Your task to perform on an android device: see sites visited before in the chrome app Image 0: 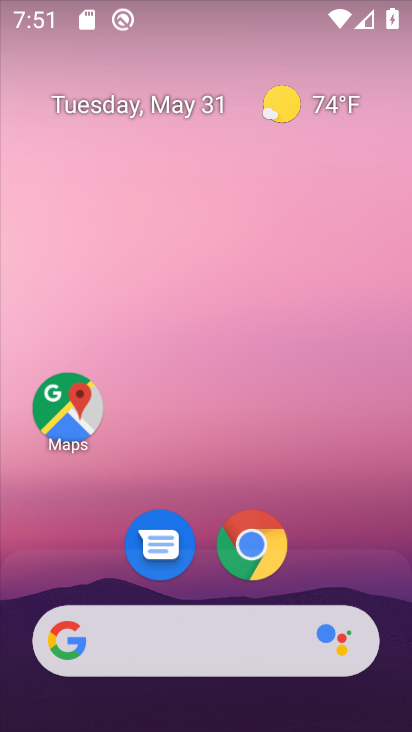
Step 0: drag from (332, 547) to (260, 47)
Your task to perform on an android device: see sites visited before in the chrome app Image 1: 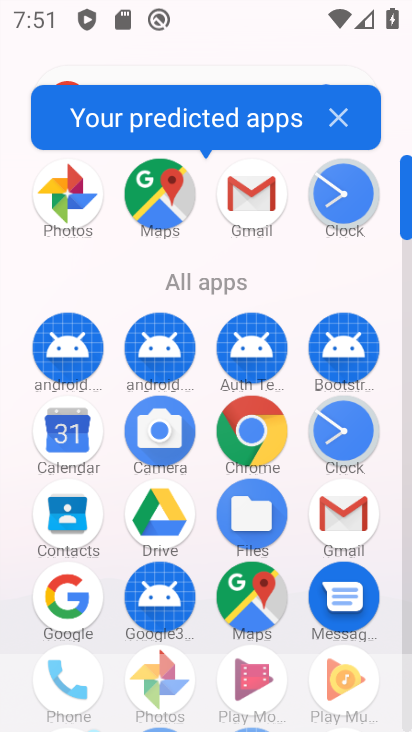
Step 1: drag from (11, 536) to (23, 220)
Your task to perform on an android device: see sites visited before in the chrome app Image 2: 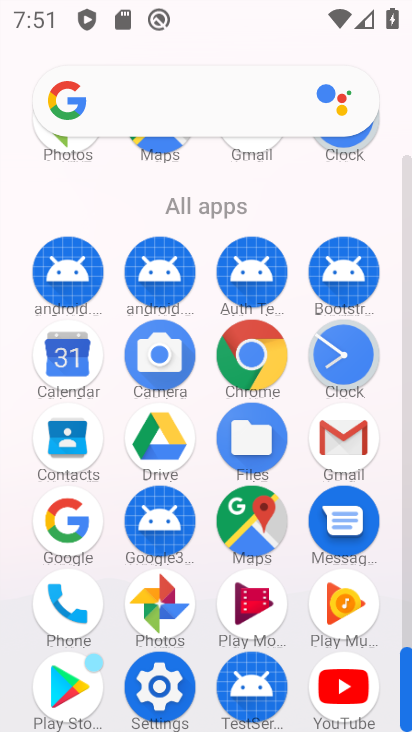
Step 2: click (250, 350)
Your task to perform on an android device: see sites visited before in the chrome app Image 3: 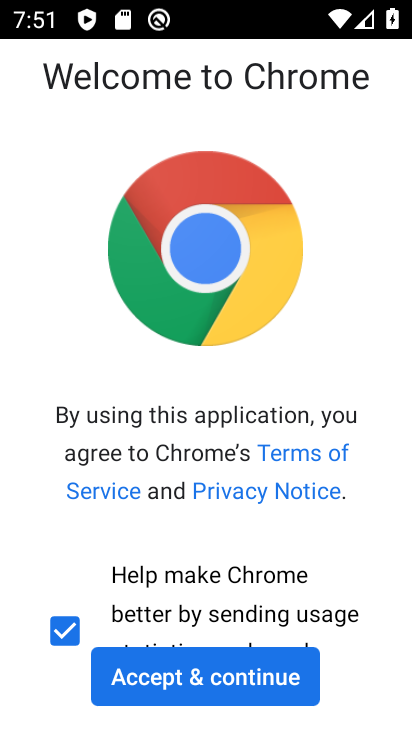
Step 3: click (234, 679)
Your task to perform on an android device: see sites visited before in the chrome app Image 4: 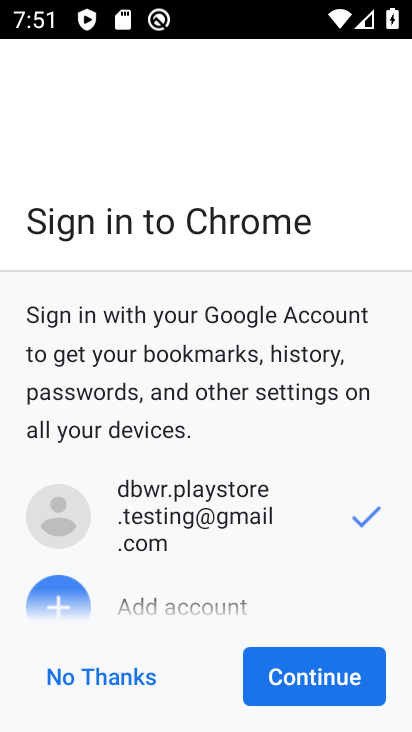
Step 4: click (273, 669)
Your task to perform on an android device: see sites visited before in the chrome app Image 5: 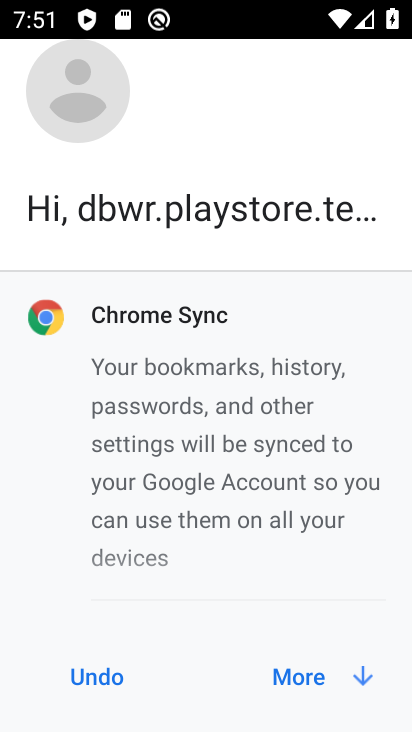
Step 5: click (279, 673)
Your task to perform on an android device: see sites visited before in the chrome app Image 6: 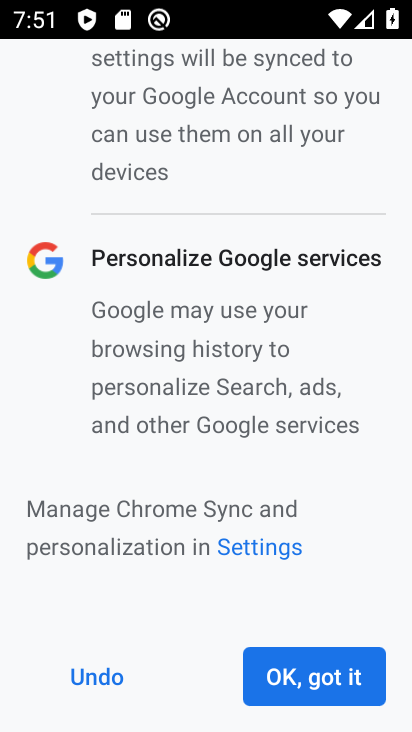
Step 6: click (279, 673)
Your task to perform on an android device: see sites visited before in the chrome app Image 7: 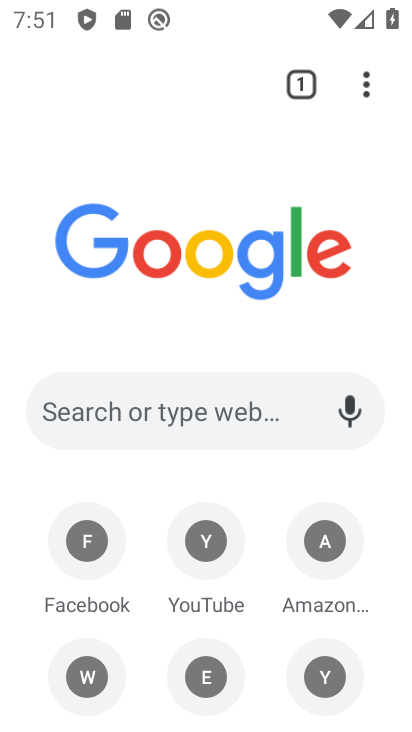
Step 7: task complete